Your task to perform on an android device: Do I have any events tomorrow? Image 0: 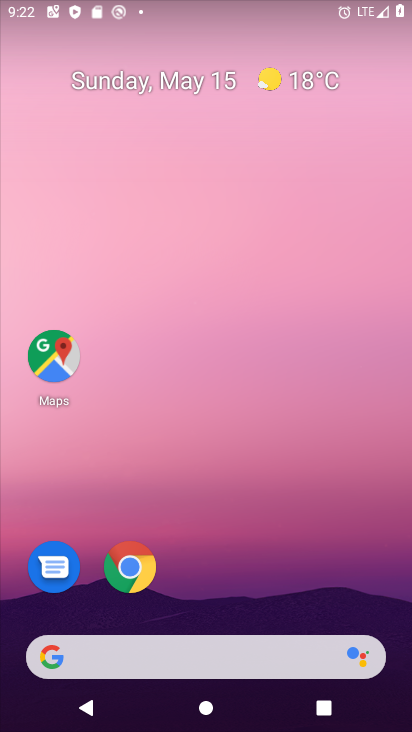
Step 0: drag from (245, 475) to (273, 6)
Your task to perform on an android device: Do I have any events tomorrow? Image 1: 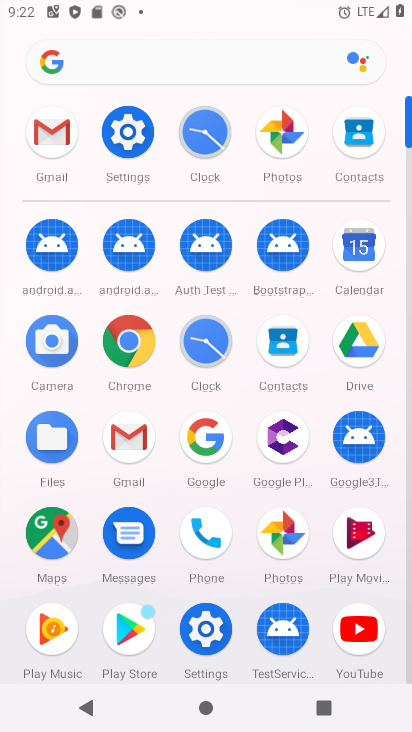
Step 1: click (360, 265)
Your task to perform on an android device: Do I have any events tomorrow? Image 2: 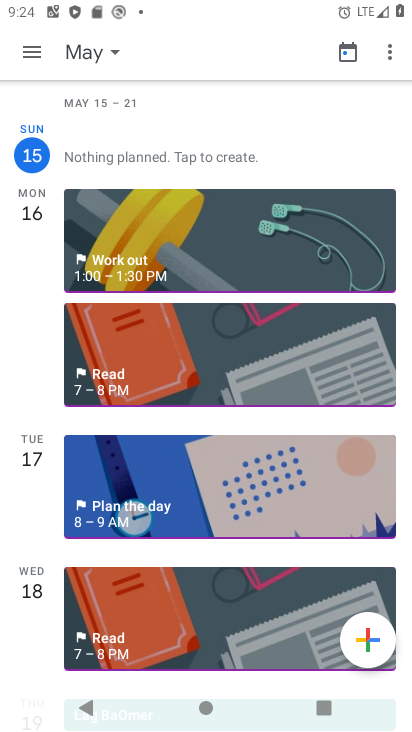
Step 2: task complete